Your task to perform on an android device: turn on priority inbox in the gmail app Image 0: 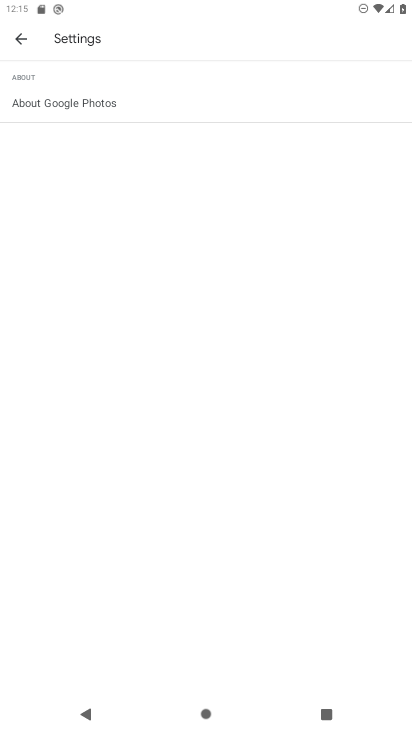
Step 0: press home button
Your task to perform on an android device: turn on priority inbox in the gmail app Image 1: 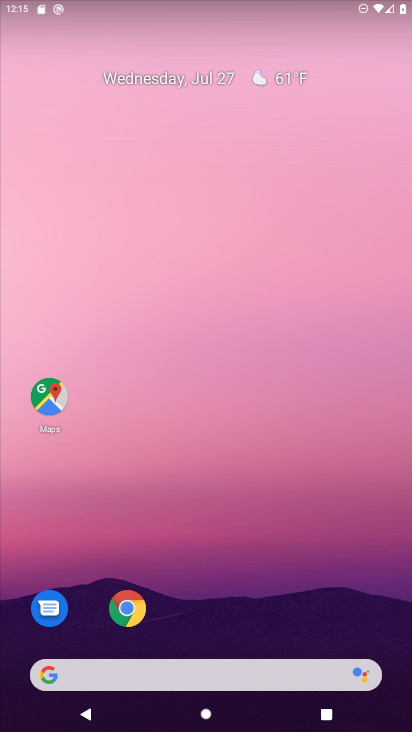
Step 1: drag from (322, 593) to (338, 245)
Your task to perform on an android device: turn on priority inbox in the gmail app Image 2: 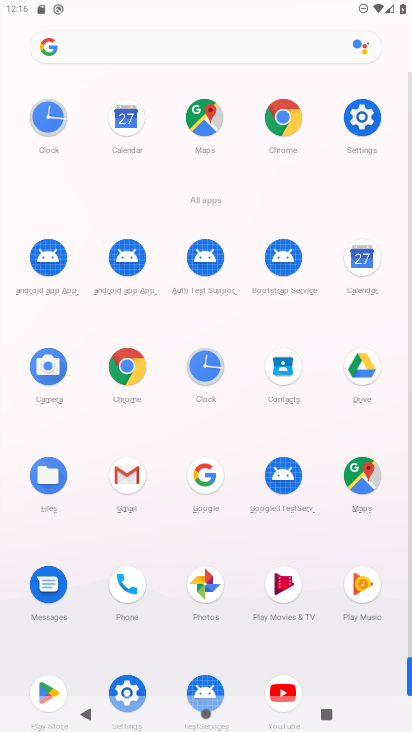
Step 2: click (134, 473)
Your task to perform on an android device: turn on priority inbox in the gmail app Image 3: 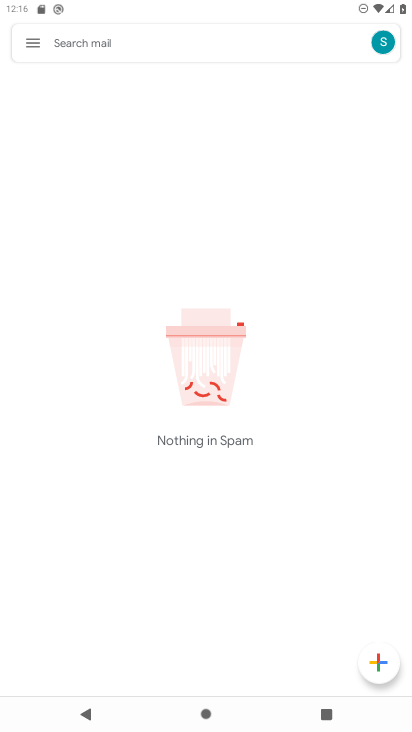
Step 3: click (36, 42)
Your task to perform on an android device: turn on priority inbox in the gmail app Image 4: 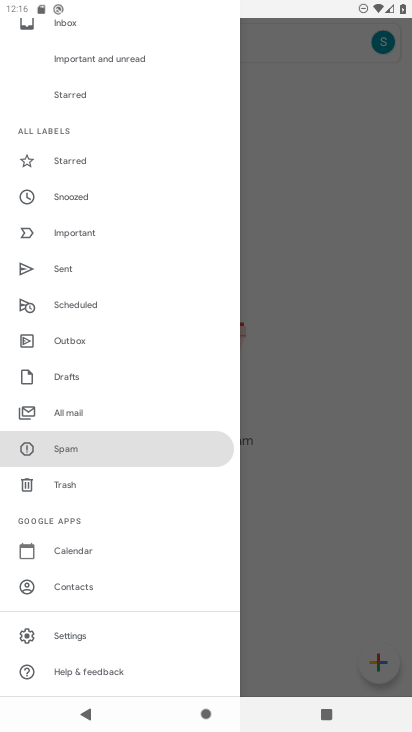
Step 4: drag from (172, 242) to (175, 326)
Your task to perform on an android device: turn on priority inbox in the gmail app Image 5: 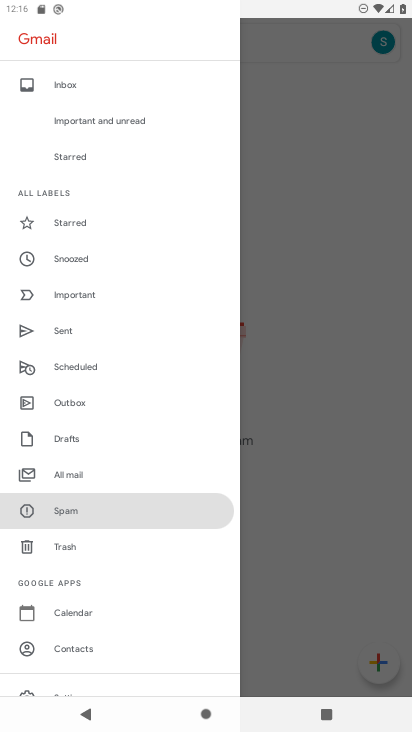
Step 5: drag from (175, 186) to (175, 314)
Your task to perform on an android device: turn on priority inbox in the gmail app Image 6: 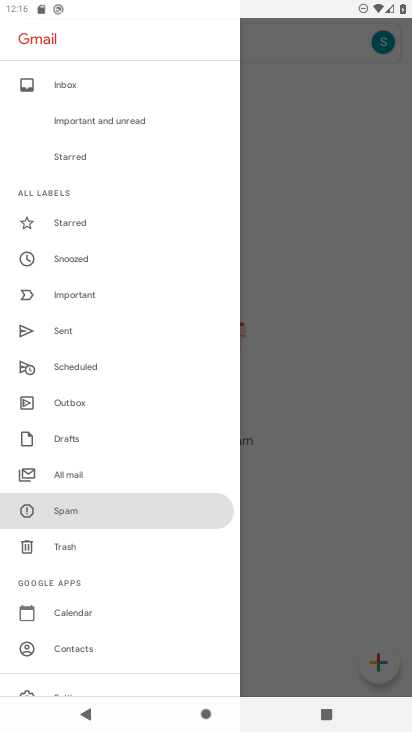
Step 6: drag from (173, 374) to (174, 311)
Your task to perform on an android device: turn on priority inbox in the gmail app Image 7: 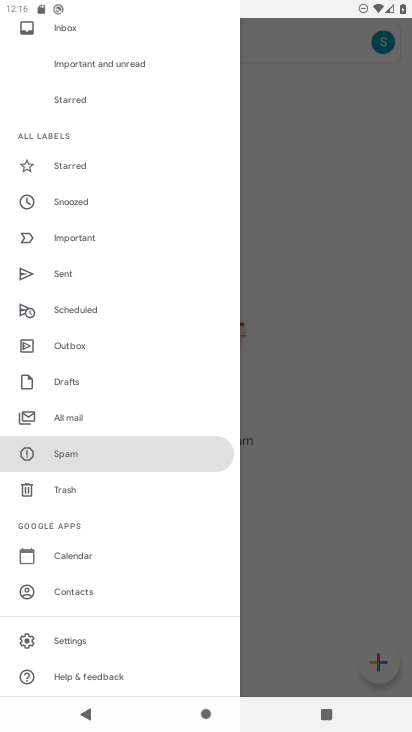
Step 7: drag from (172, 470) to (172, 391)
Your task to perform on an android device: turn on priority inbox in the gmail app Image 8: 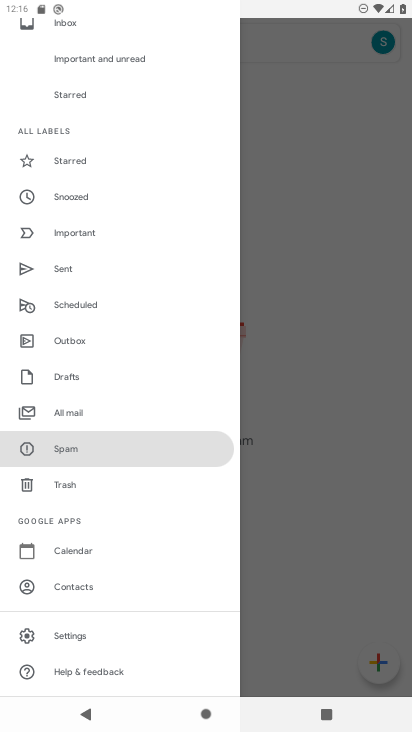
Step 8: click (122, 632)
Your task to perform on an android device: turn on priority inbox in the gmail app Image 9: 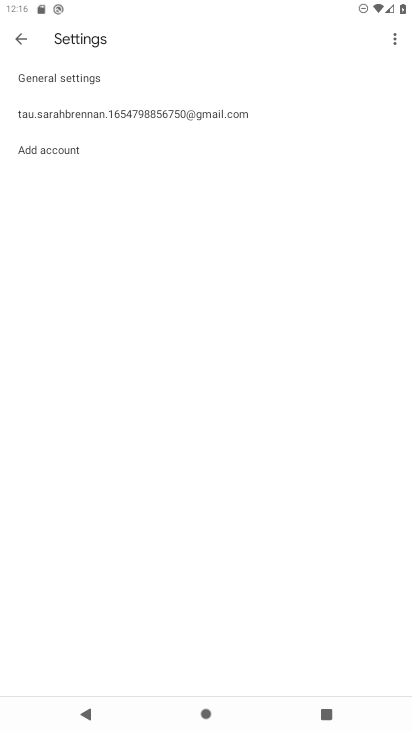
Step 9: click (240, 109)
Your task to perform on an android device: turn on priority inbox in the gmail app Image 10: 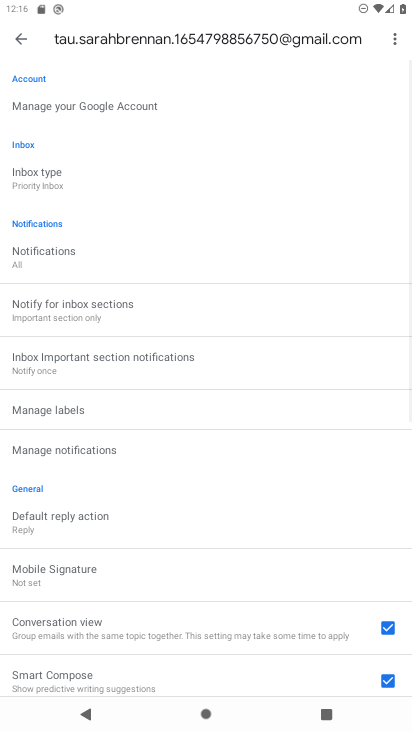
Step 10: task complete